Your task to perform on an android device: Go to Wikipedia Image 0: 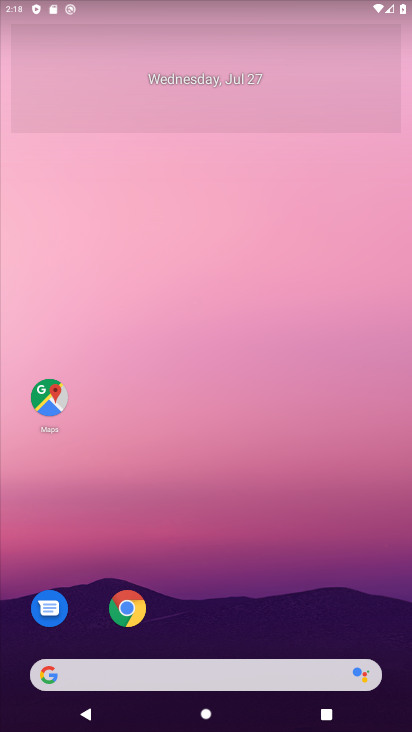
Step 0: click (163, 680)
Your task to perform on an android device: Go to Wikipedia Image 1: 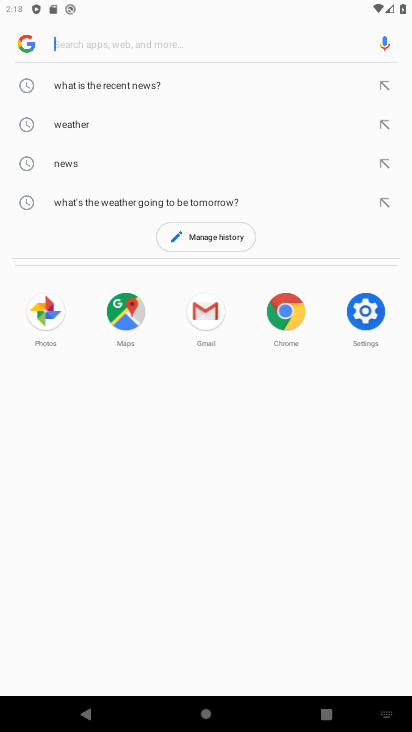
Step 1: type " Wikipedia"
Your task to perform on an android device: Go to Wikipedia Image 2: 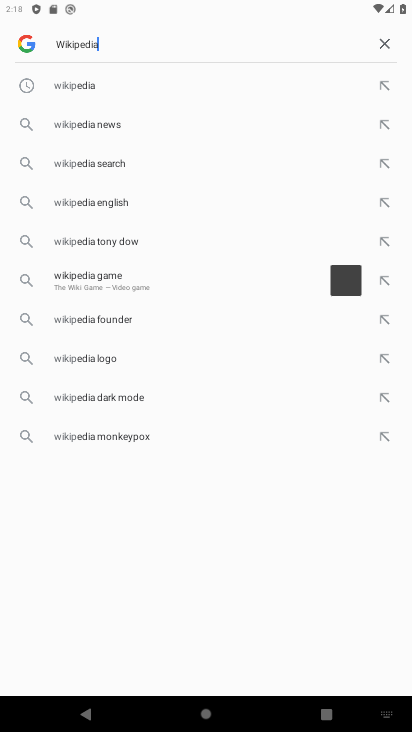
Step 2: press enter
Your task to perform on an android device: Go to Wikipedia Image 3: 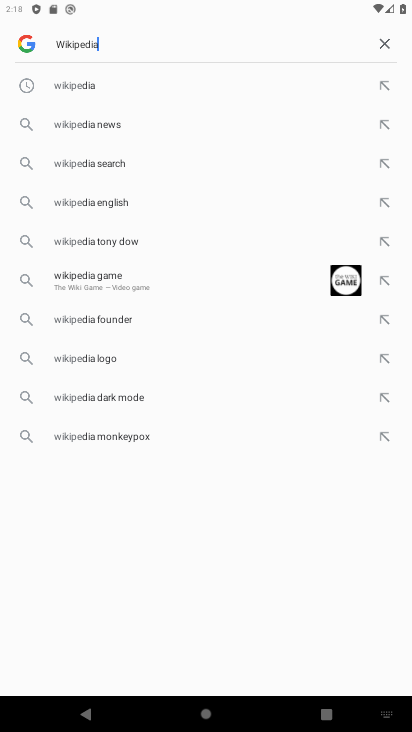
Step 3: type ""
Your task to perform on an android device: Go to Wikipedia Image 4: 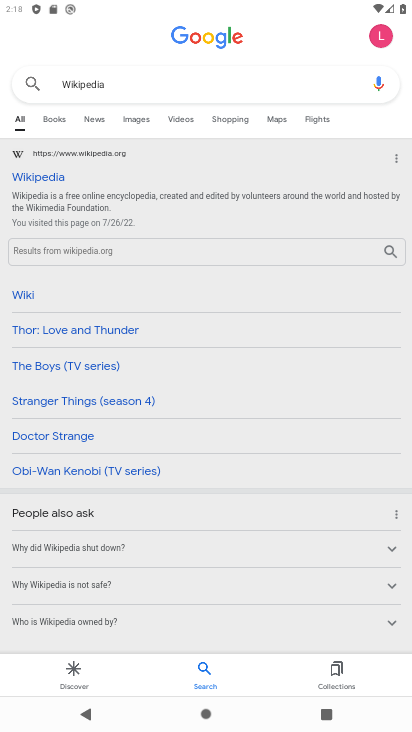
Step 4: task complete